Your task to perform on an android device: Check the weather Image 0: 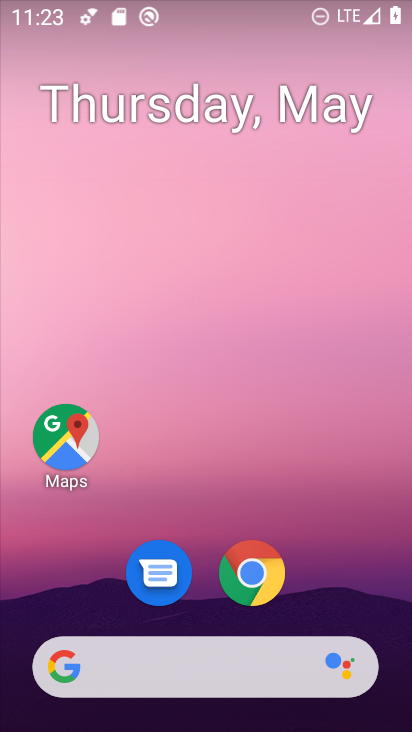
Step 0: drag from (316, 545) to (264, 0)
Your task to perform on an android device: Check the weather Image 1: 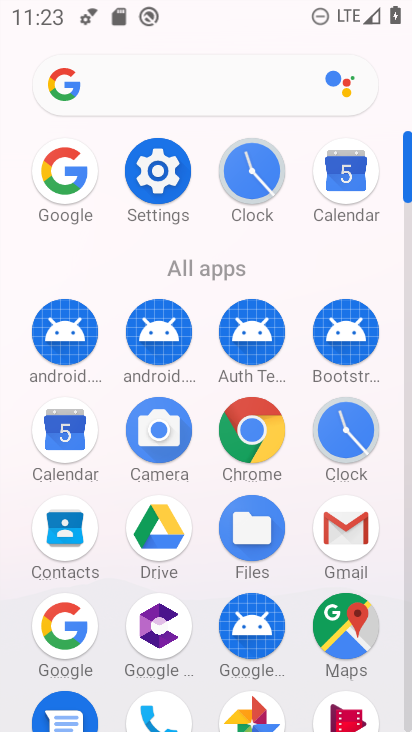
Step 1: click (62, 171)
Your task to perform on an android device: Check the weather Image 2: 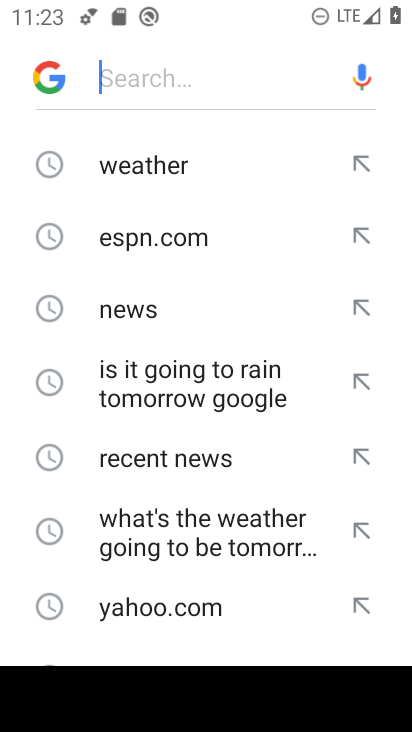
Step 2: click (157, 166)
Your task to perform on an android device: Check the weather Image 3: 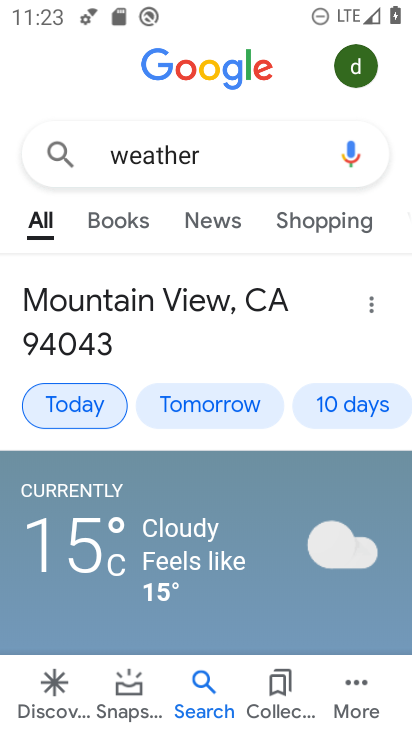
Step 3: task complete